Your task to perform on an android device: change the clock display to analog Image 0: 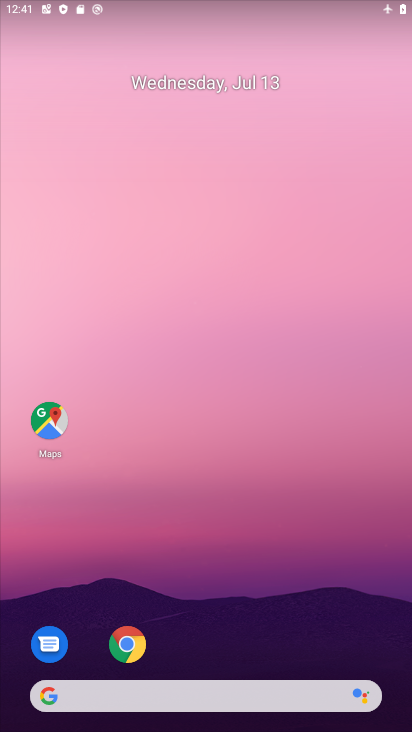
Step 0: drag from (220, 441) to (192, 117)
Your task to perform on an android device: change the clock display to analog Image 1: 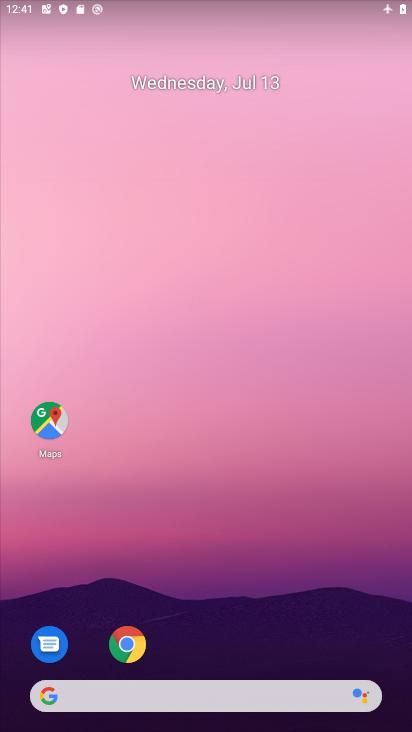
Step 1: drag from (274, 588) to (202, 7)
Your task to perform on an android device: change the clock display to analog Image 2: 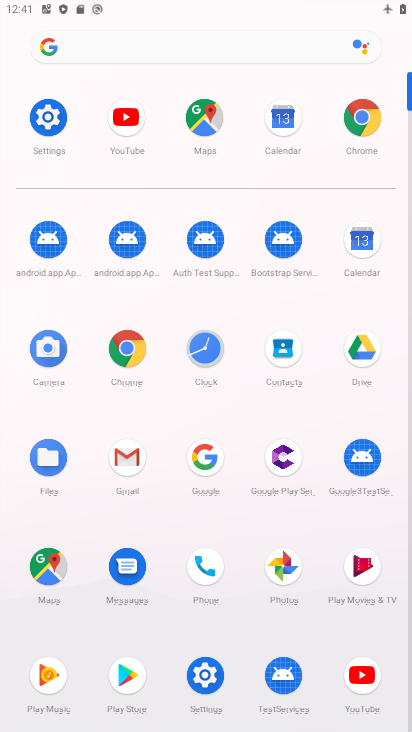
Step 2: click (214, 347)
Your task to perform on an android device: change the clock display to analog Image 3: 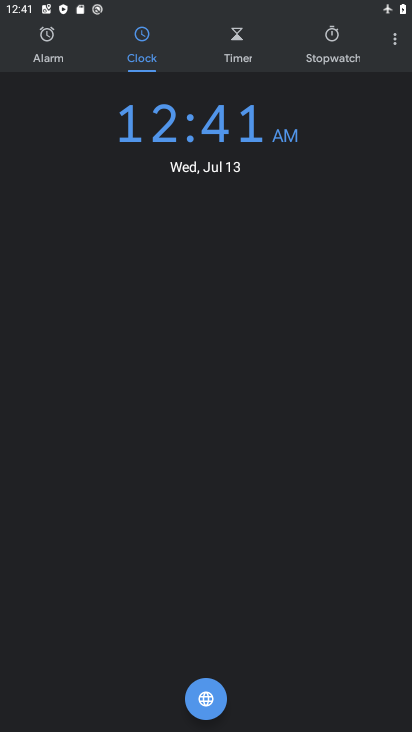
Step 3: click (396, 40)
Your task to perform on an android device: change the clock display to analog Image 4: 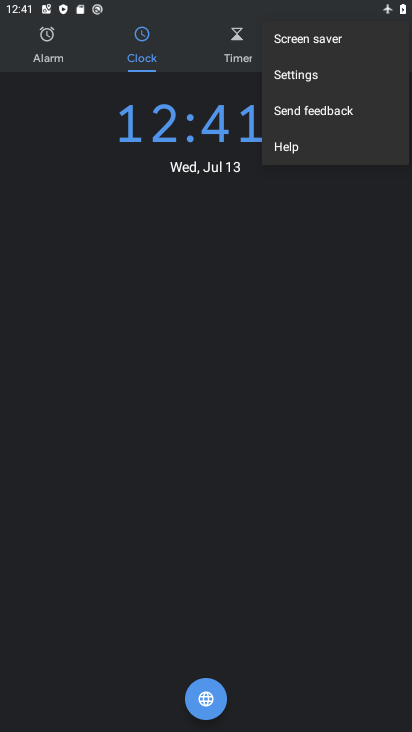
Step 4: click (309, 71)
Your task to perform on an android device: change the clock display to analog Image 5: 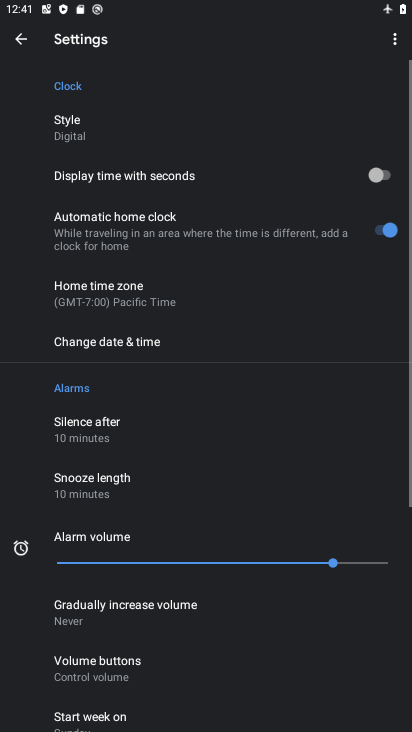
Step 5: click (98, 127)
Your task to perform on an android device: change the clock display to analog Image 6: 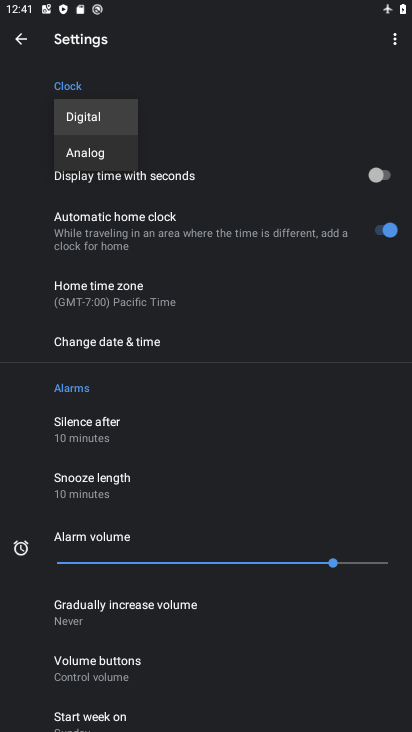
Step 6: click (104, 161)
Your task to perform on an android device: change the clock display to analog Image 7: 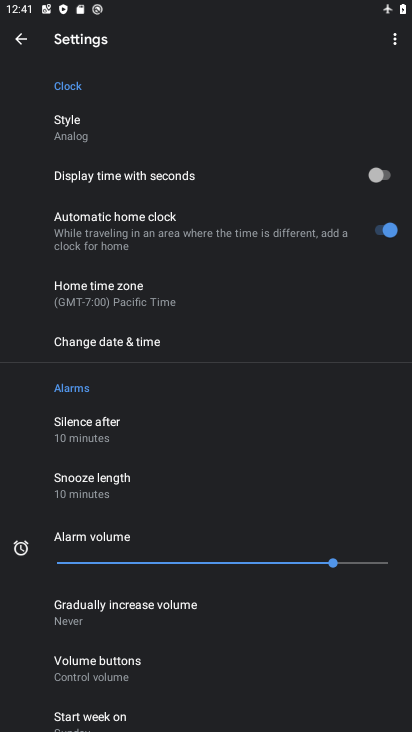
Step 7: task complete